Your task to perform on an android device: What is the speed of a plane? Image 0: 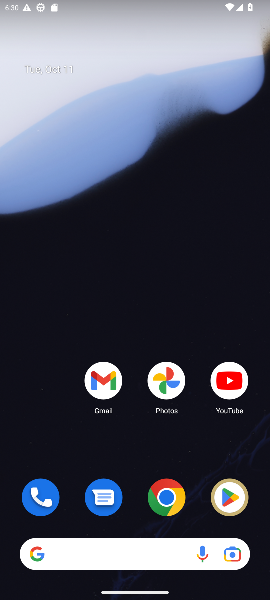
Step 0: click (95, 556)
Your task to perform on an android device: What is the speed of a plane? Image 1: 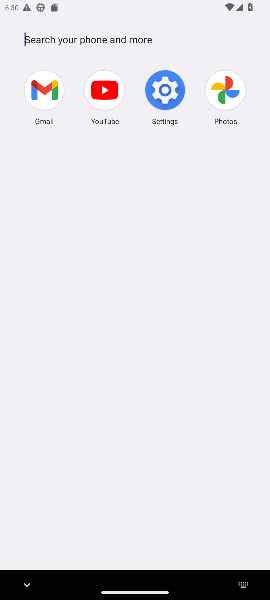
Step 1: click (106, 39)
Your task to perform on an android device: What is the speed of a plane? Image 2: 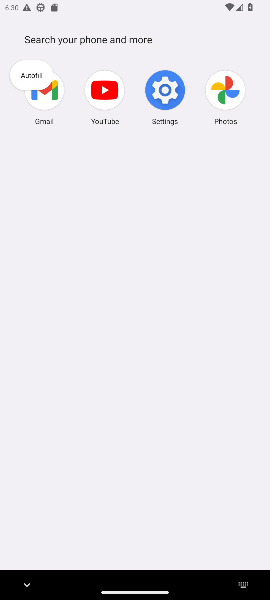
Step 2: type "the speed of a plane"
Your task to perform on an android device: What is the speed of a plane? Image 3: 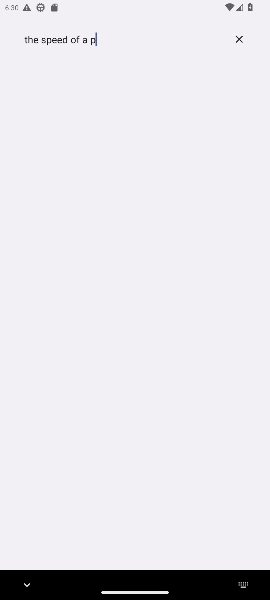
Step 3: type ""
Your task to perform on an android device: What is the speed of a plane? Image 4: 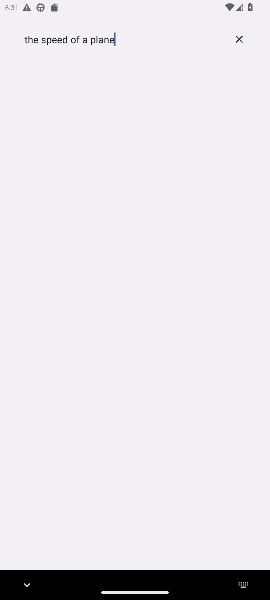
Step 4: press enter
Your task to perform on an android device: What is the speed of a plane? Image 5: 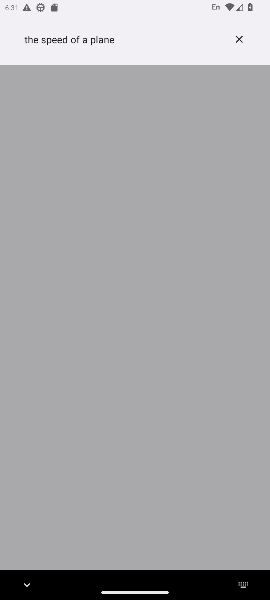
Step 5: press enter
Your task to perform on an android device: What is the speed of a plane? Image 6: 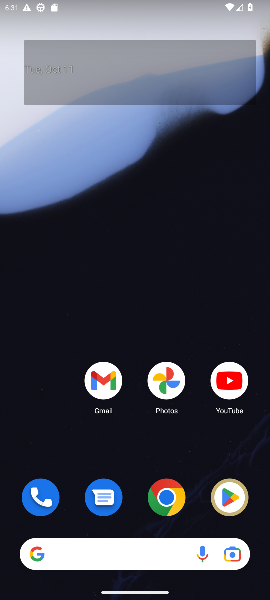
Step 6: click (143, 537)
Your task to perform on an android device: What is the speed of a plane? Image 7: 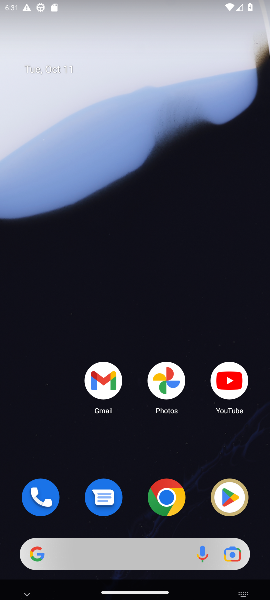
Step 7: click (153, 498)
Your task to perform on an android device: What is the speed of a plane? Image 8: 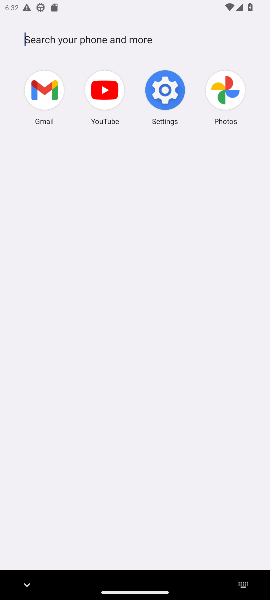
Step 8: task complete